Your task to perform on an android device: Show me productivity apps on the Play Store Image 0: 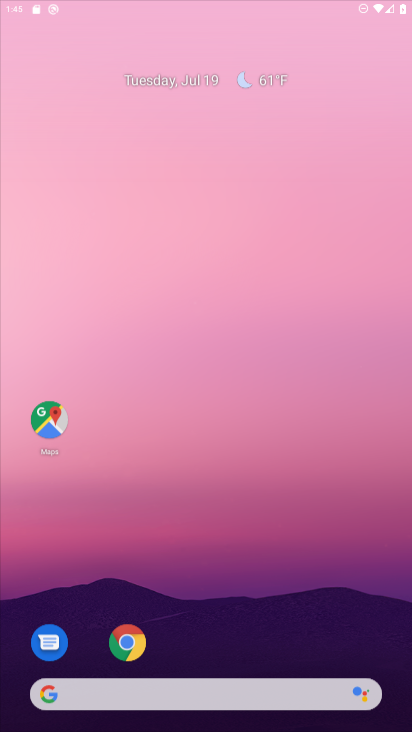
Step 0: press home button
Your task to perform on an android device: Show me productivity apps on the Play Store Image 1: 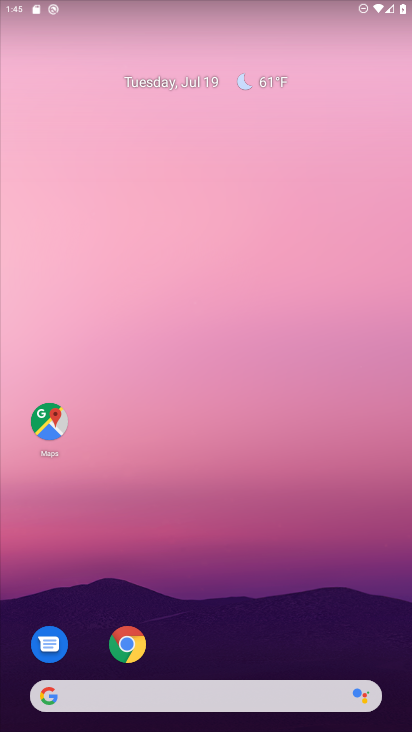
Step 1: click (131, 640)
Your task to perform on an android device: Show me productivity apps on the Play Store Image 2: 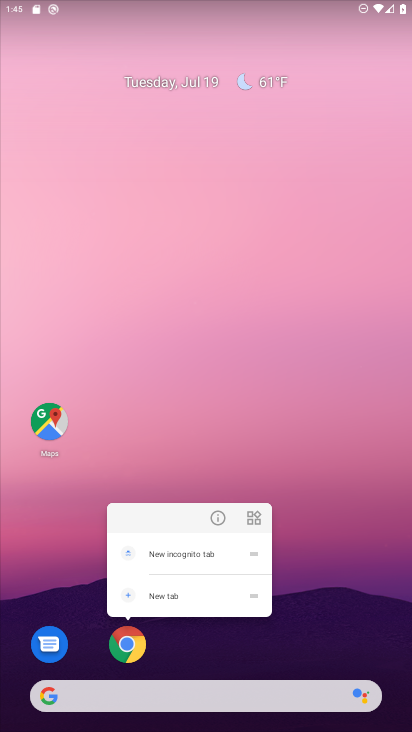
Step 2: click (131, 638)
Your task to perform on an android device: Show me productivity apps on the Play Store Image 3: 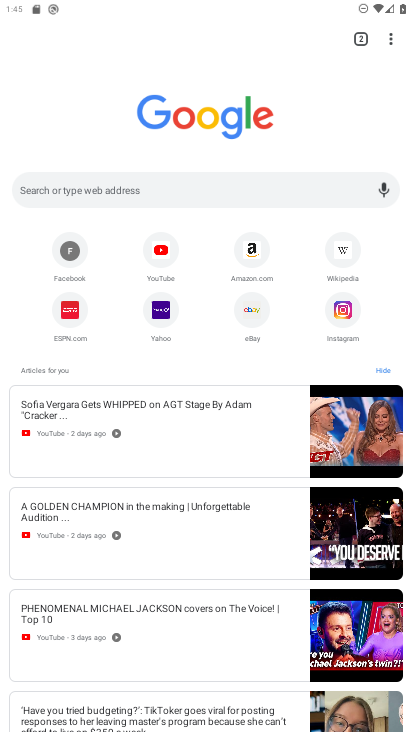
Step 3: press home button
Your task to perform on an android device: Show me productivity apps on the Play Store Image 4: 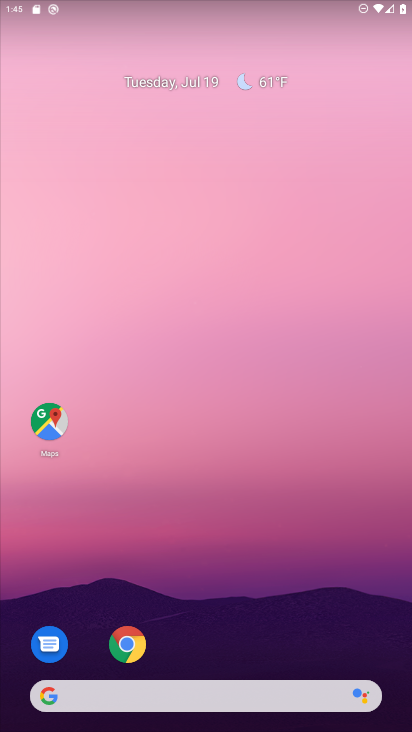
Step 4: drag from (407, 703) to (336, 63)
Your task to perform on an android device: Show me productivity apps on the Play Store Image 5: 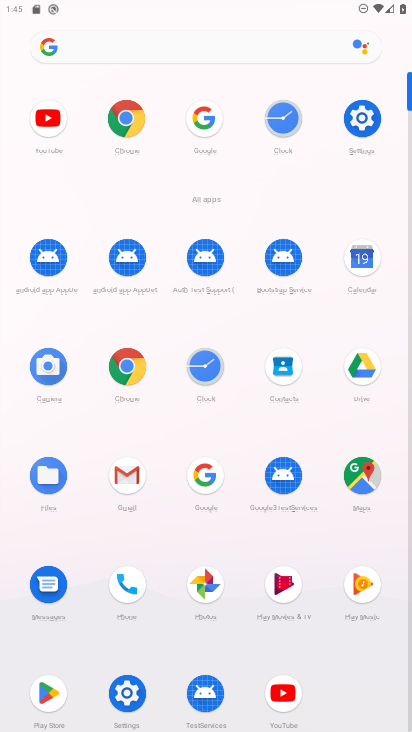
Step 5: click (43, 677)
Your task to perform on an android device: Show me productivity apps on the Play Store Image 6: 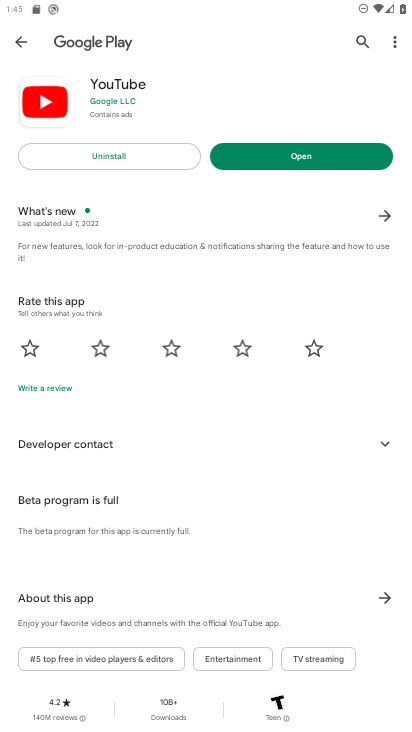
Step 6: click (268, 157)
Your task to perform on an android device: Show me productivity apps on the Play Store Image 7: 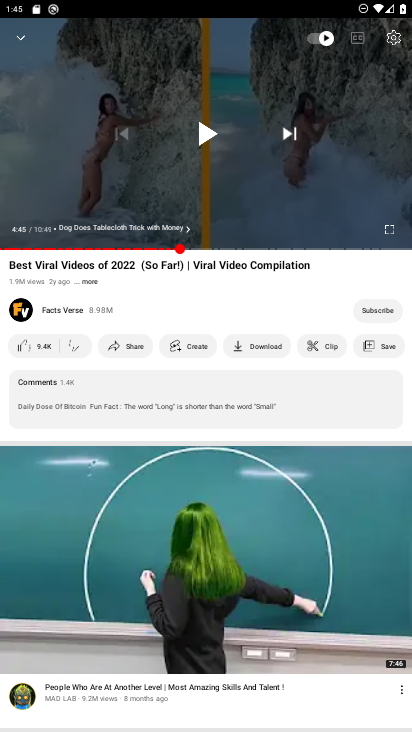
Step 7: drag from (242, 96) to (275, 416)
Your task to perform on an android device: Show me productivity apps on the Play Store Image 8: 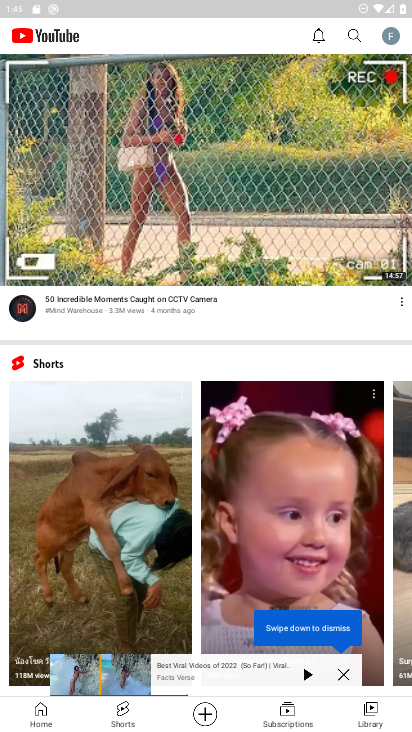
Step 8: click (343, 673)
Your task to perform on an android device: Show me productivity apps on the Play Store Image 9: 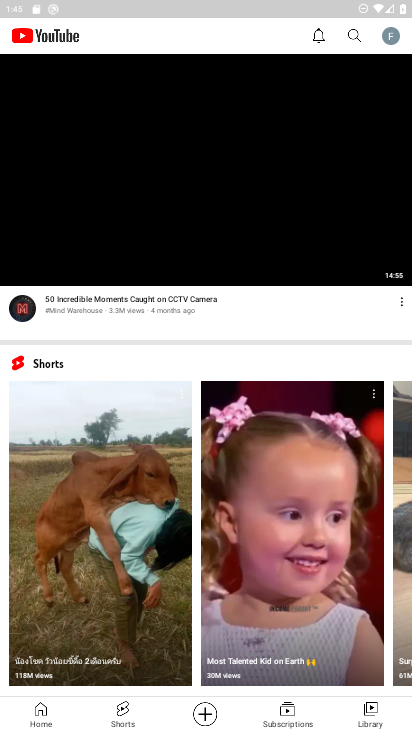
Step 9: click (348, 33)
Your task to perform on an android device: Show me productivity apps on the Play Store Image 10: 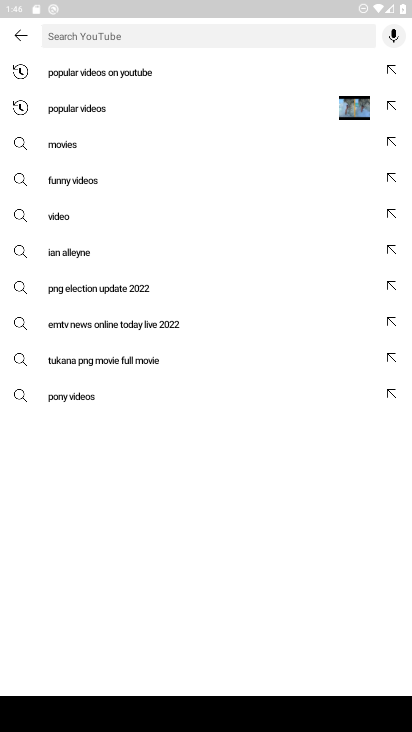
Step 10: type "productivity apps on the Play Store"
Your task to perform on an android device: Show me productivity apps on the Play Store Image 11: 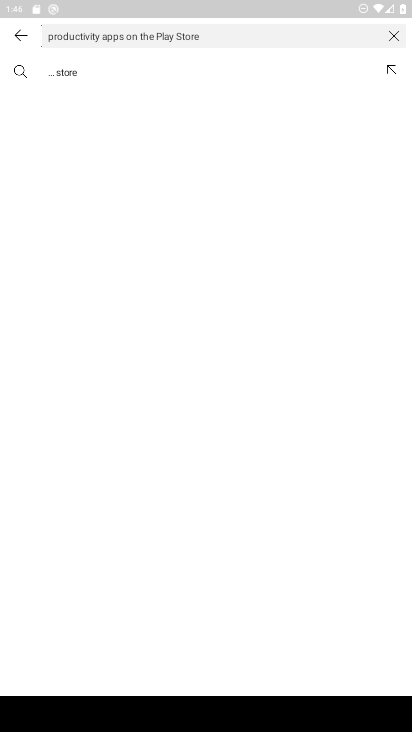
Step 11: task complete